Your task to perform on an android device: read, delete, or share a saved page in the chrome app Image 0: 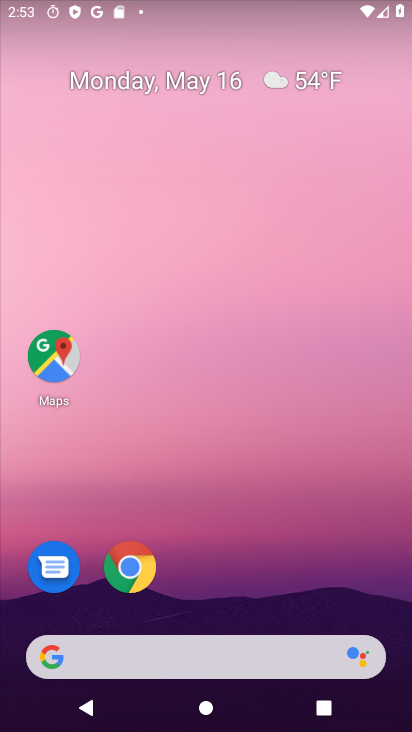
Step 0: click (129, 570)
Your task to perform on an android device: read, delete, or share a saved page in the chrome app Image 1: 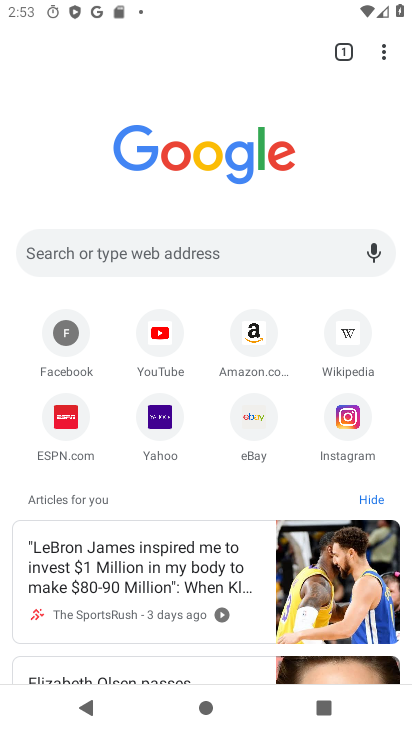
Step 1: click (386, 52)
Your task to perform on an android device: read, delete, or share a saved page in the chrome app Image 2: 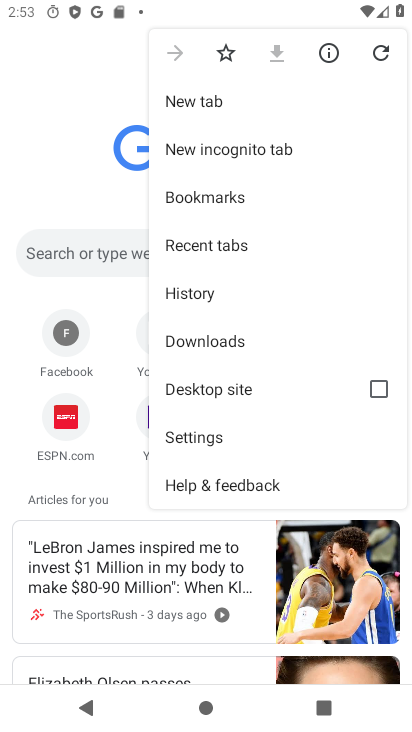
Step 2: click (199, 344)
Your task to perform on an android device: read, delete, or share a saved page in the chrome app Image 3: 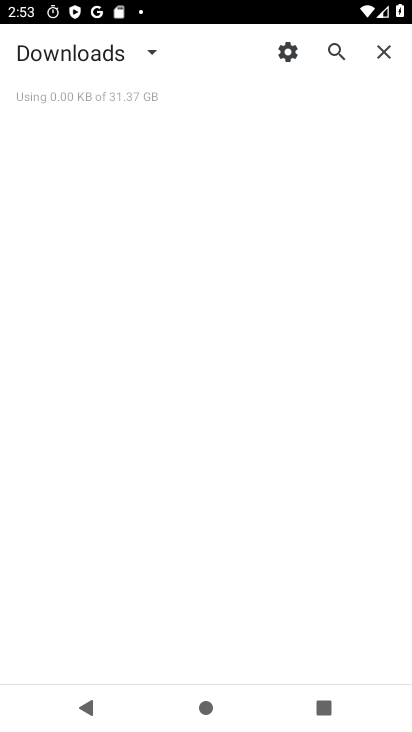
Step 3: task complete